Your task to perform on an android device: allow cookies in the chrome app Image 0: 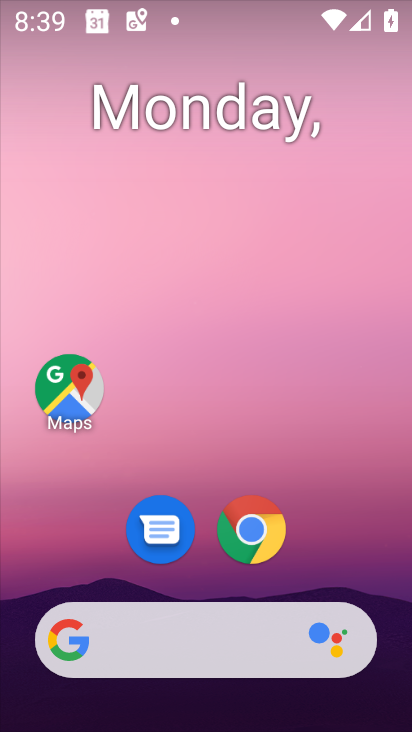
Step 0: click (255, 525)
Your task to perform on an android device: allow cookies in the chrome app Image 1: 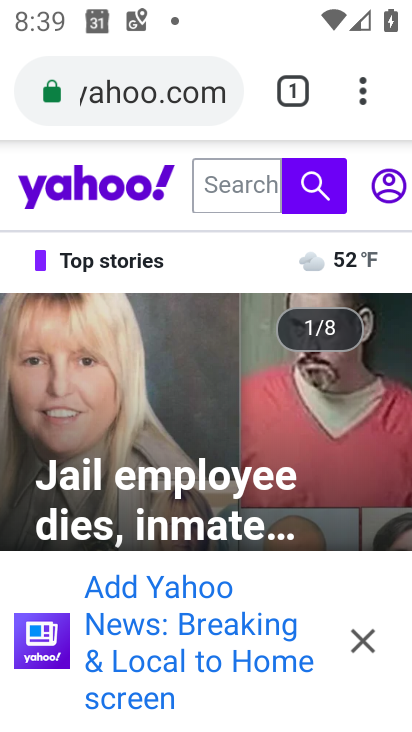
Step 1: click (362, 88)
Your task to perform on an android device: allow cookies in the chrome app Image 2: 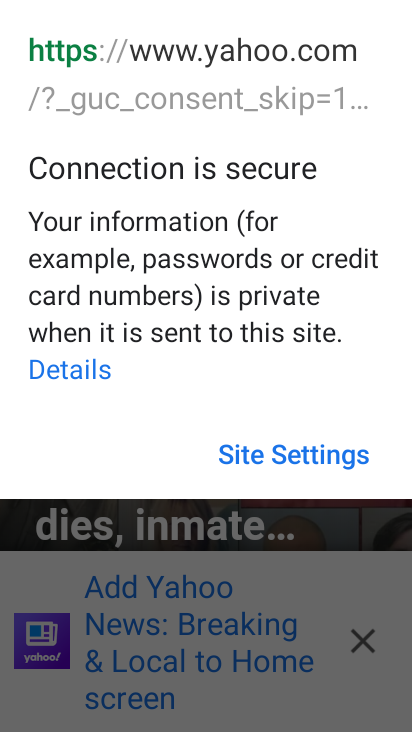
Step 2: click (314, 455)
Your task to perform on an android device: allow cookies in the chrome app Image 3: 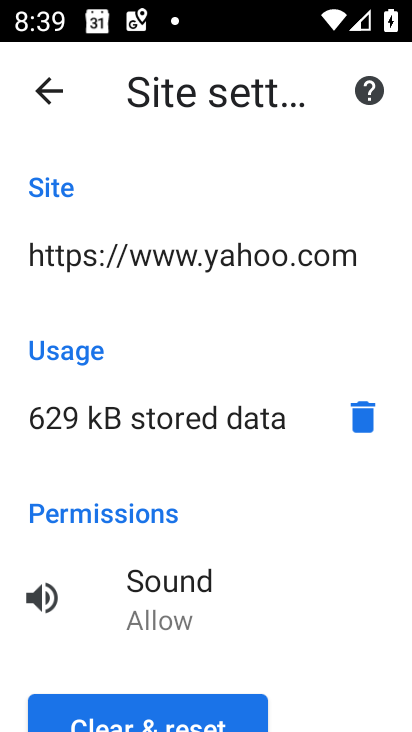
Step 3: press back button
Your task to perform on an android device: allow cookies in the chrome app Image 4: 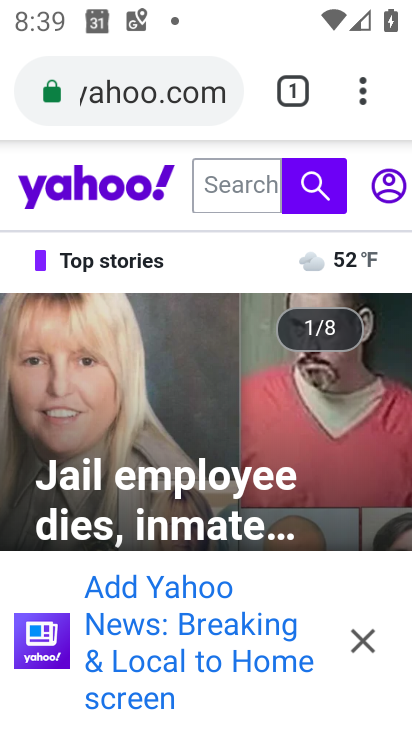
Step 4: click (370, 89)
Your task to perform on an android device: allow cookies in the chrome app Image 5: 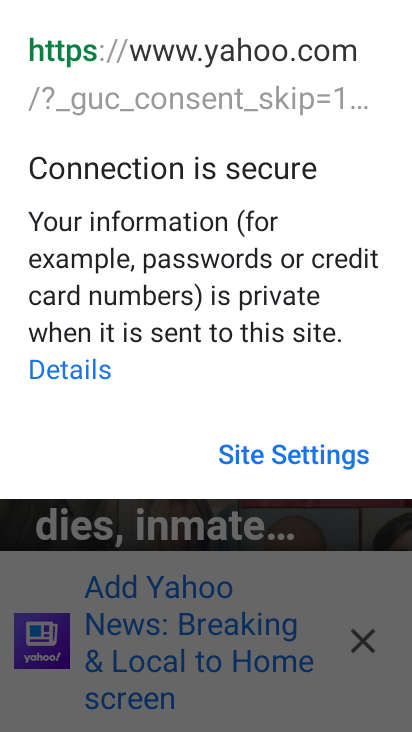
Step 5: click (136, 444)
Your task to perform on an android device: allow cookies in the chrome app Image 6: 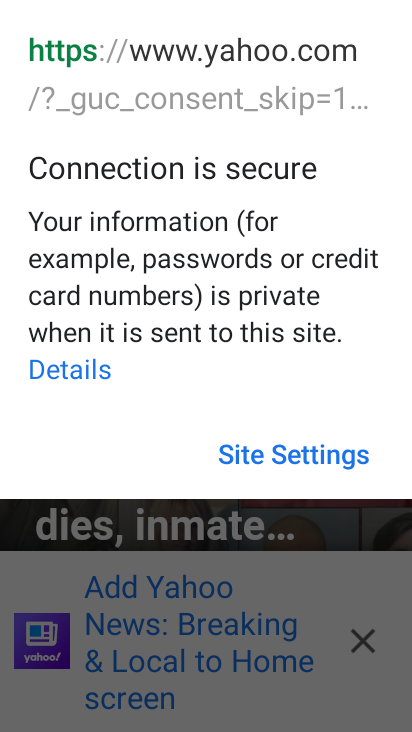
Step 6: click (339, 599)
Your task to perform on an android device: allow cookies in the chrome app Image 7: 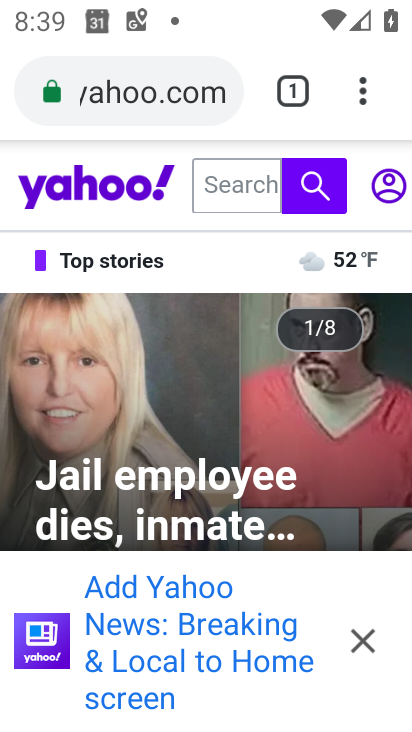
Step 7: click (358, 89)
Your task to perform on an android device: allow cookies in the chrome app Image 8: 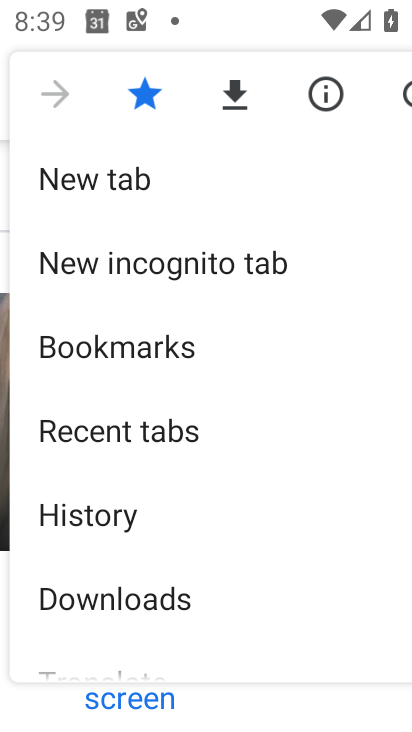
Step 8: drag from (119, 616) to (207, 252)
Your task to perform on an android device: allow cookies in the chrome app Image 9: 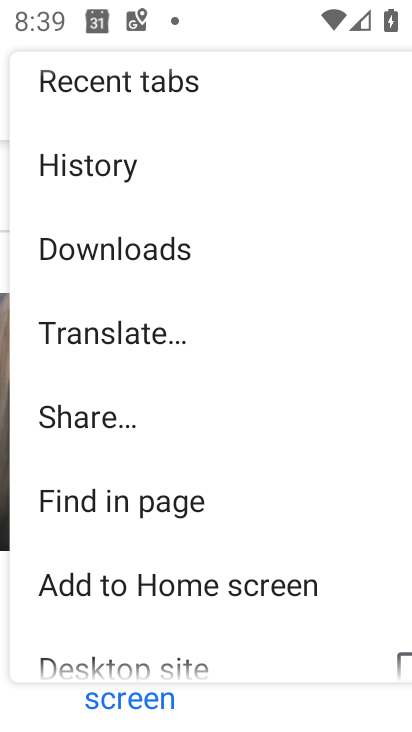
Step 9: drag from (59, 621) to (181, 336)
Your task to perform on an android device: allow cookies in the chrome app Image 10: 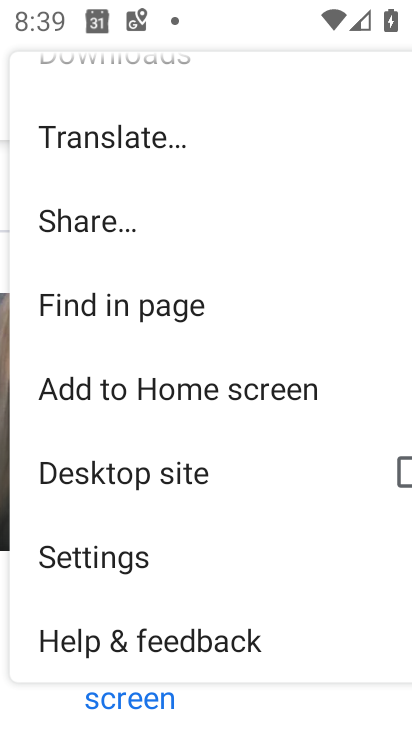
Step 10: click (94, 555)
Your task to perform on an android device: allow cookies in the chrome app Image 11: 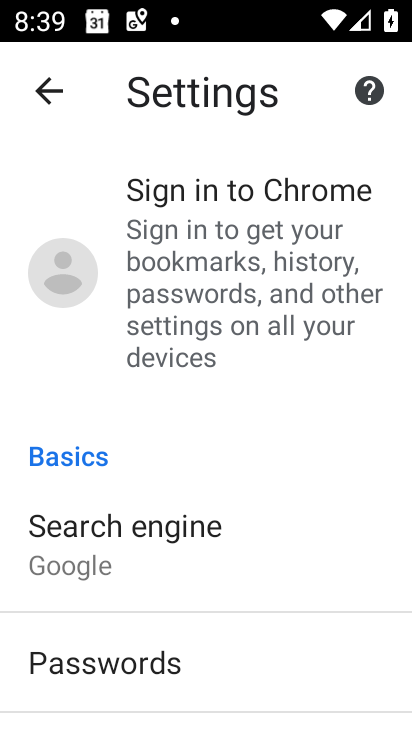
Step 11: drag from (136, 627) to (212, 321)
Your task to perform on an android device: allow cookies in the chrome app Image 12: 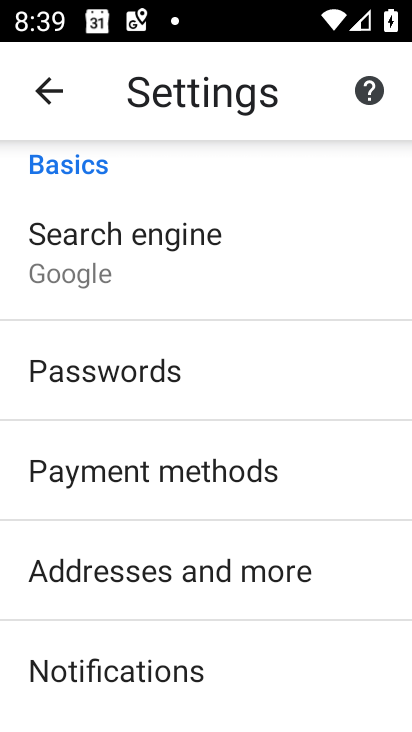
Step 12: drag from (100, 676) to (199, 331)
Your task to perform on an android device: allow cookies in the chrome app Image 13: 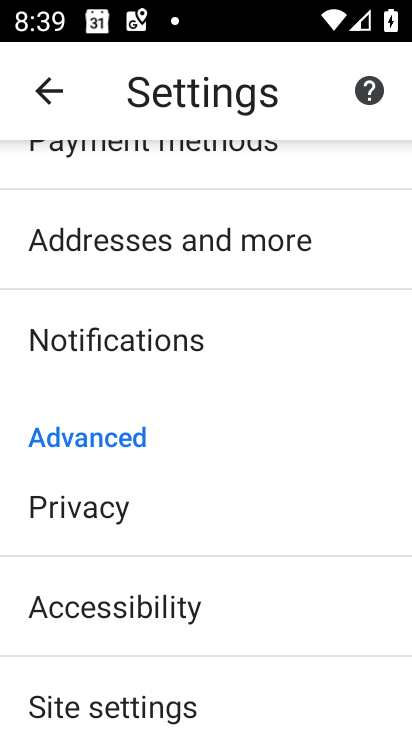
Step 13: click (104, 709)
Your task to perform on an android device: allow cookies in the chrome app Image 14: 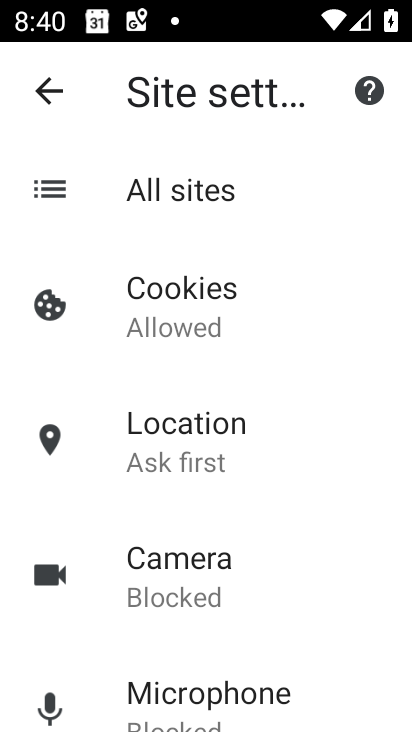
Step 14: click (169, 310)
Your task to perform on an android device: allow cookies in the chrome app Image 15: 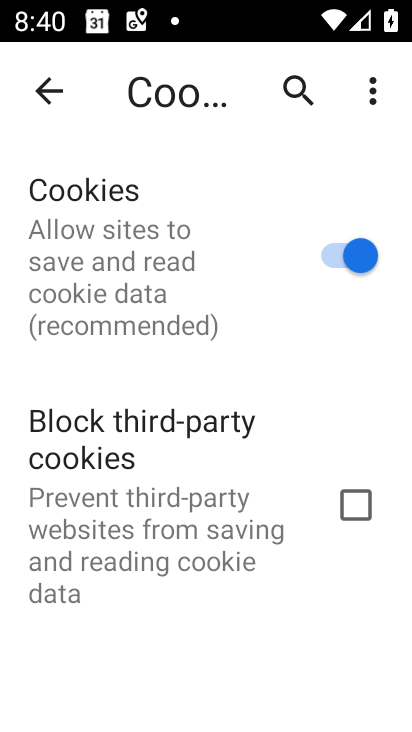
Step 15: task complete